Your task to perform on an android device: Go to network settings Image 0: 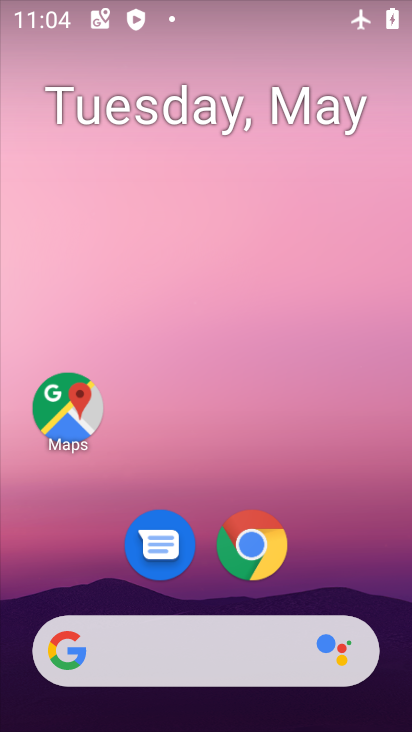
Step 0: drag from (252, 589) to (281, 171)
Your task to perform on an android device: Go to network settings Image 1: 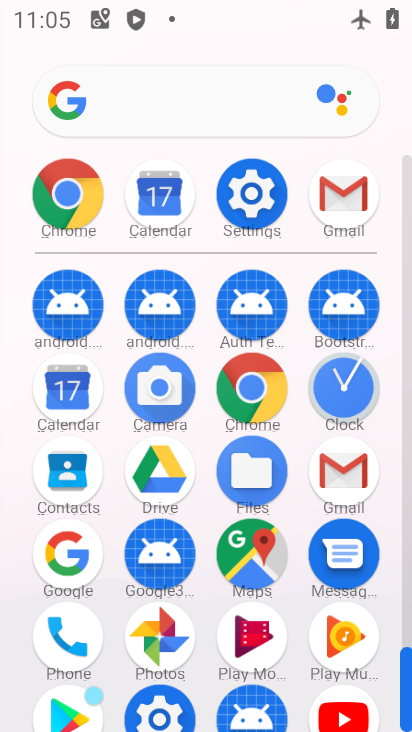
Step 1: click (272, 206)
Your task to perform on an android device: Go to network settings Image 2: 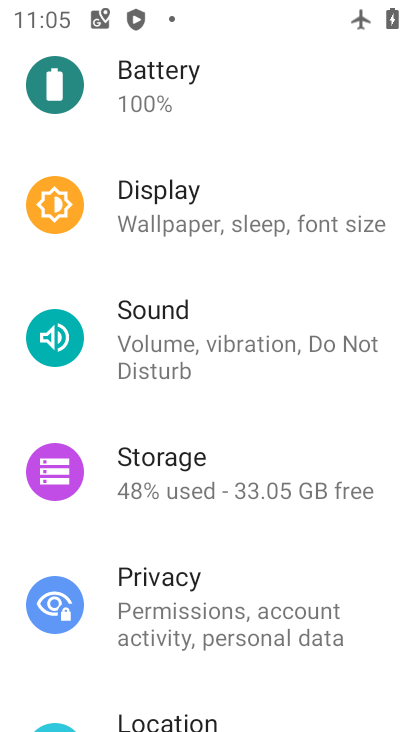
Step 2: drag from (239, 295) to (211, 402)
Your task to perform on an android device: Go to network settings Image 3: 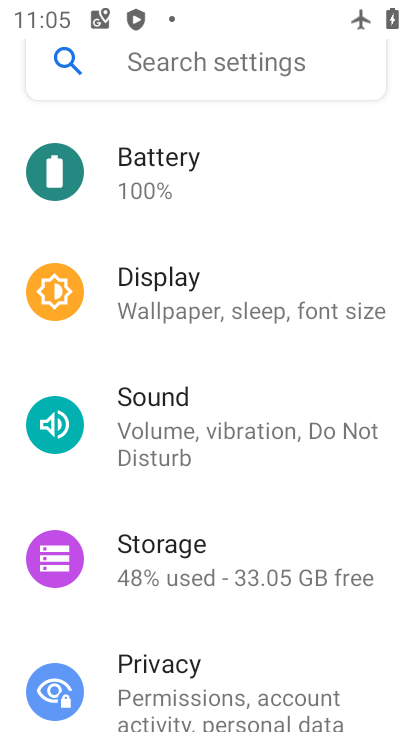
Step 3: drag from (211, 344) to (202, 483)
Your task to perform on an android device: Go to network settings Image 4: 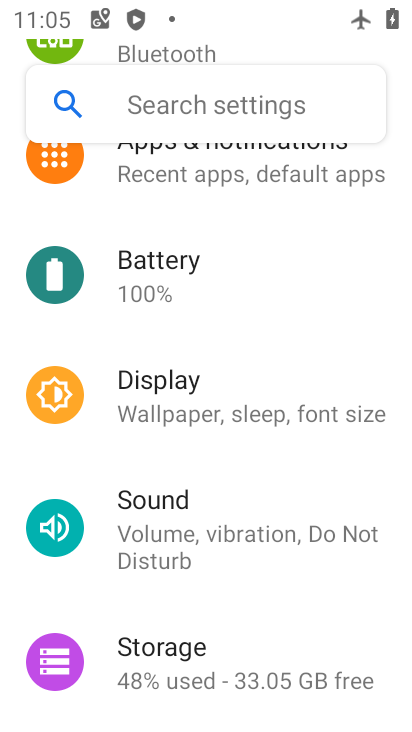
Step 4: drag from (222, 358) to (213, 427)
Your task to perform on an android device: Go to network settings Image 5: 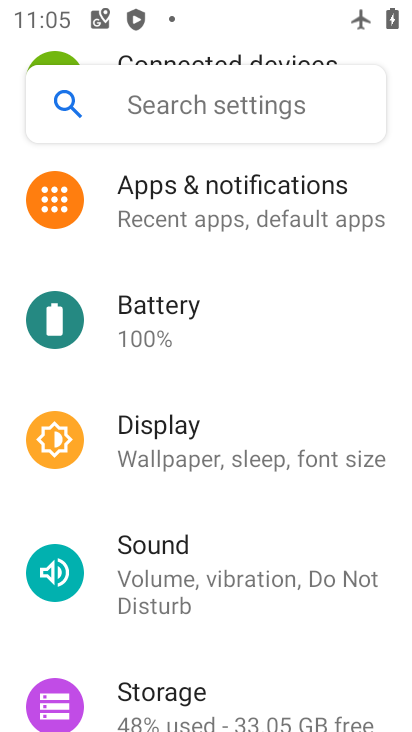
Step 5: drag from (241, 344) to (218, 409)
Your task to perform on an android device: Go to network settings Image 6: 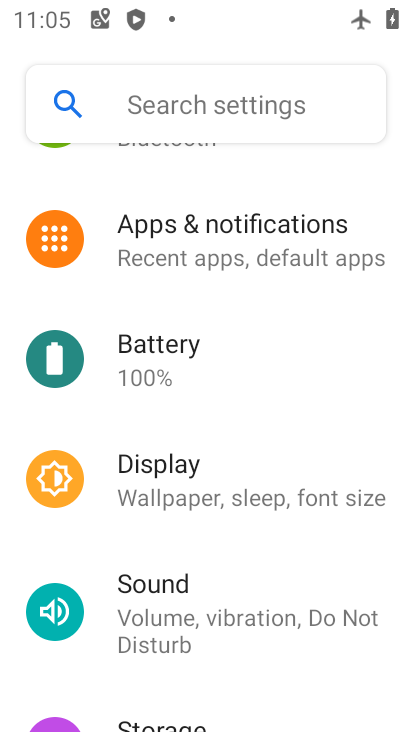
Step 6: click (194, 528)
Your task to perform on an android device: Go to network settings Image 7: 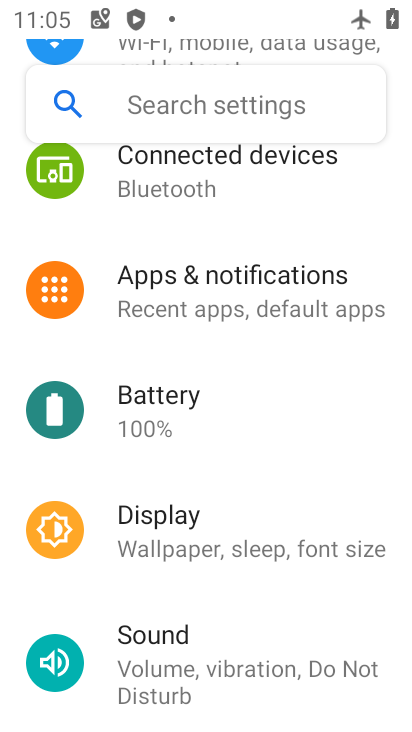
Step 7: drag from (235, 297) to (209, 438)
Your task to perform on an android device: Go to network settings Image 8: 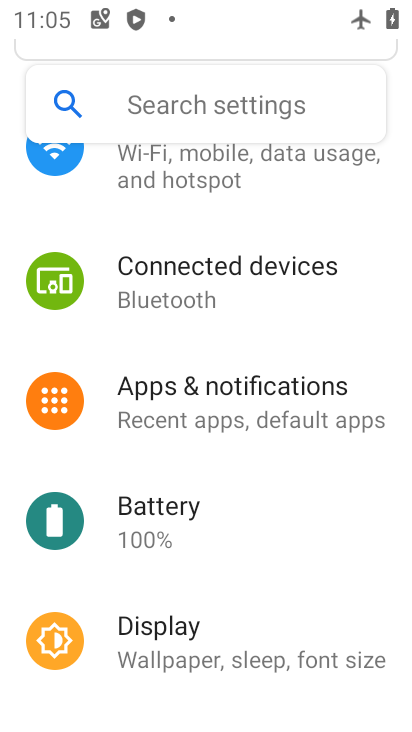
Step 8: drag from (241, 298) to (209, 468)
Your task to perform on an android device: Go to network settings Image 9: 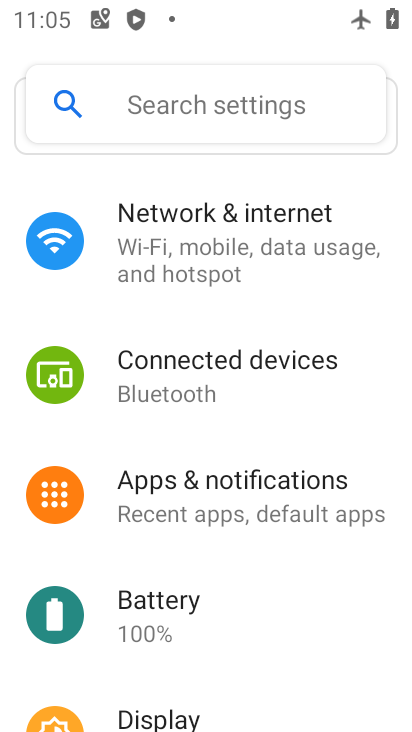
Step 9: click (244, 269)
Your task to perform on an android device: Go to network settings Image 10: 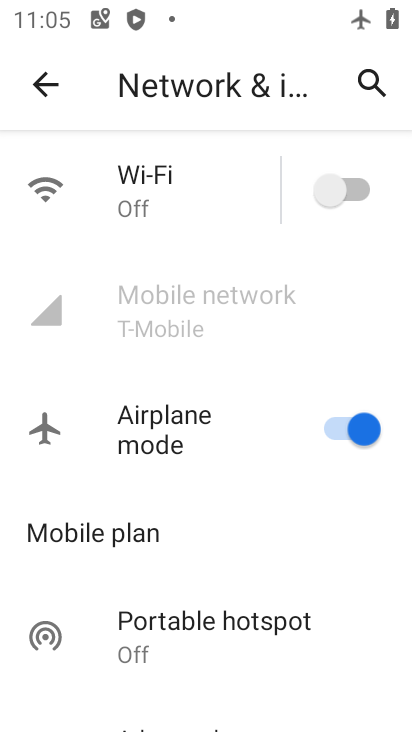
Step 10: click (188, 320)
Your task to perform on an android device: Go to network settings Image 11: 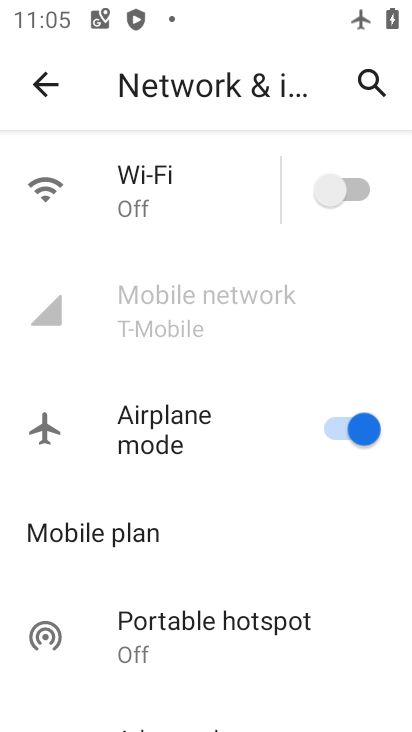
Step 11: task complete